Your task to perform on an android device: Open settings on Google Maps Image 0: 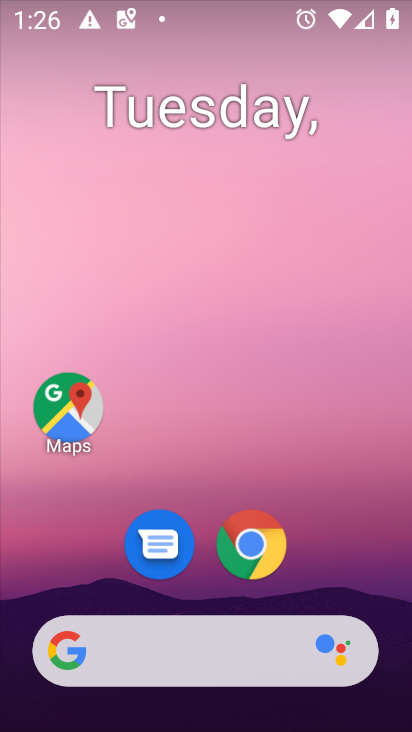
Step 0: drag from (337, 541) to (273, 42)
Your task to perform on an android device: Open settings on Google Maps Image 1: 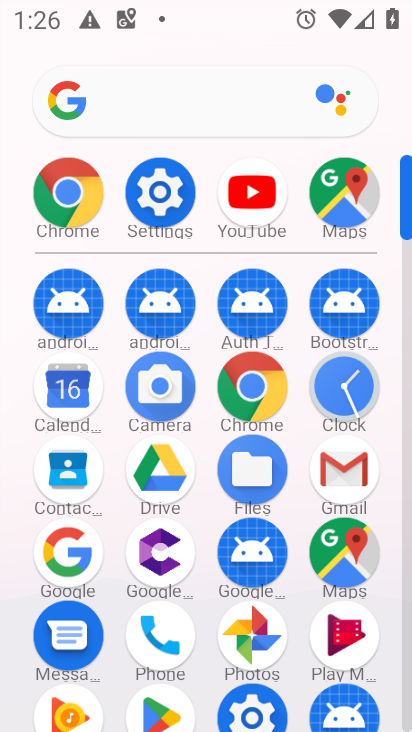
Step 1: click (343, 195)
Your task to perform on an android device: Open settings on Google Maps Image 2: 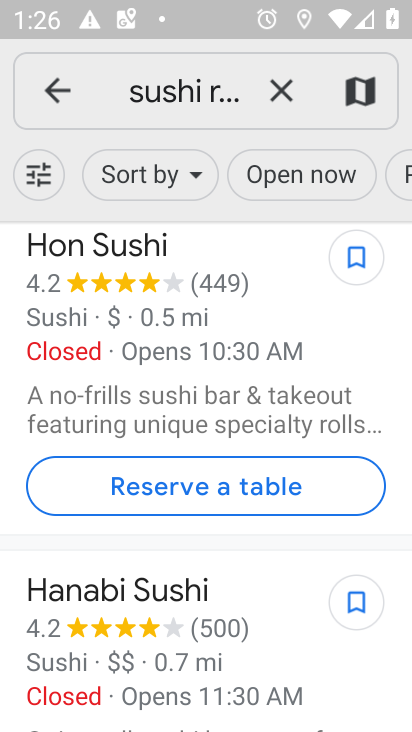
Step 2: click (44, 81)
Your task to perform on an android device: Open settings on Google Maps Image 3: 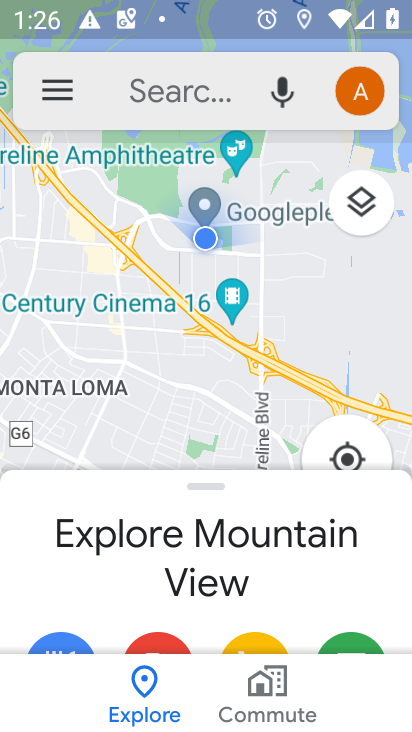
Step 3: click (50, 87)
Your task to perform on an android device: Open settings on Google Maps Image 4: 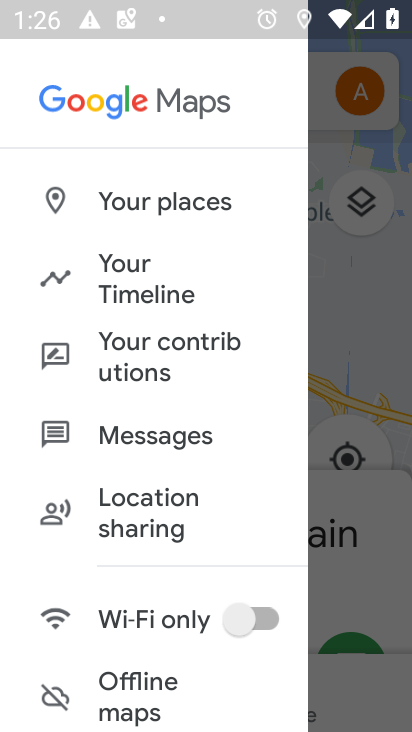
Step 4: drag from (106, 664) to (187, 29)
Your task to perform on an android device: Open settings on Google Maps Image 5: 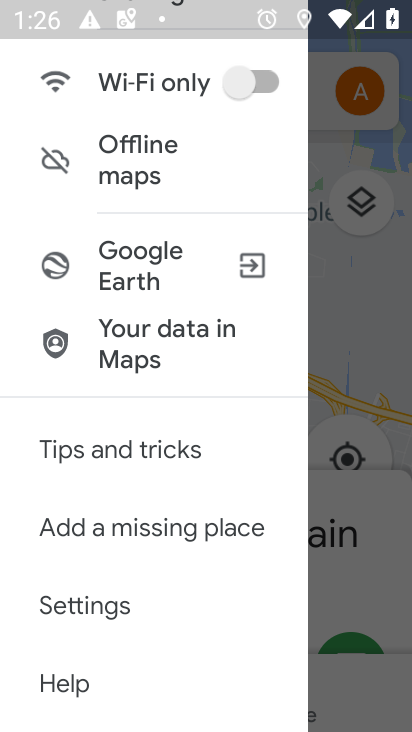
Step 5: click (114, 608)
Your task to perform on an android device: Open settings on Google Maps Image 6: 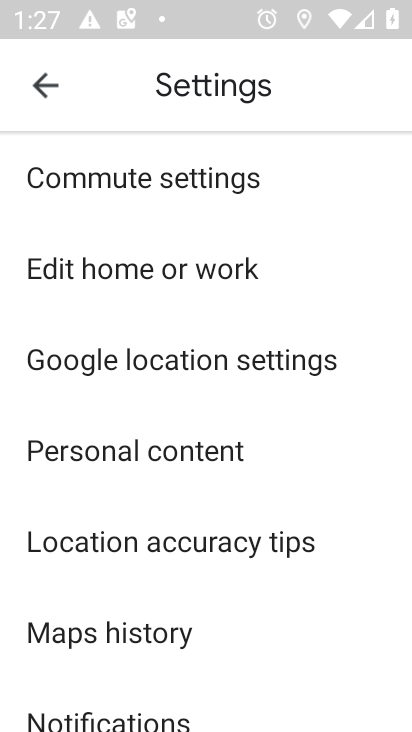
Step 6: task complete